Your task to perform on an android device: Open the calendar and show me this week's events Image 0: 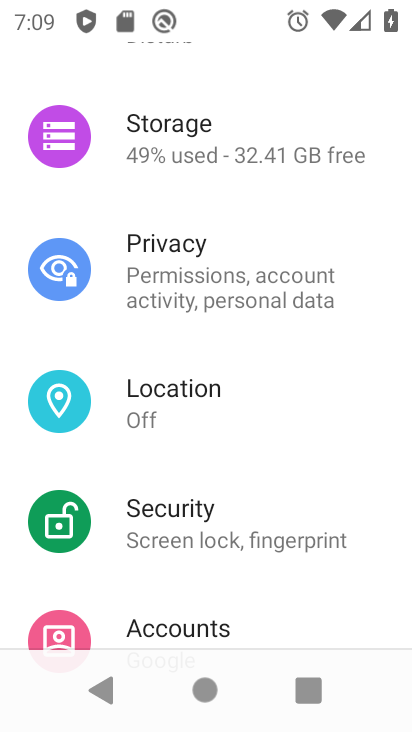
Step 0: press home button
Your task to perform on an android device: Open the calendar and show me this week's events Image 1: 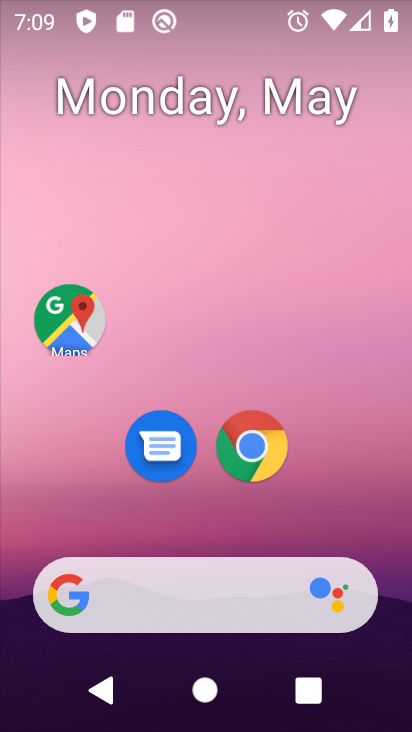
Step 1: drag from (337, 459) to (206, 45)
Your task to perform on an android device: Open the calendar and show me this week's events Image 2: 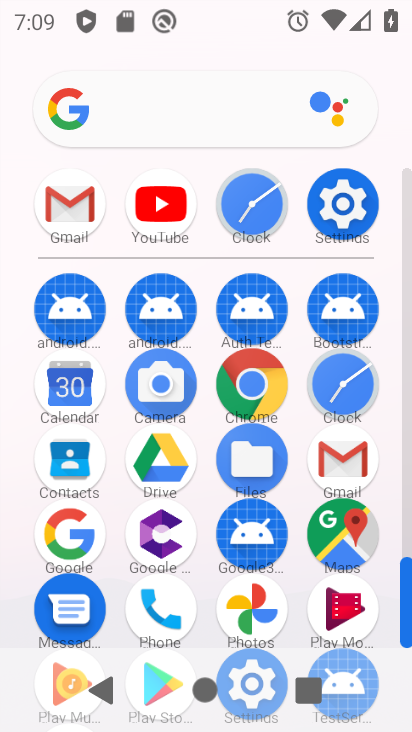
Step 2: click (71, 379)
Your task to perform on an android device: Open the calendar and show me this week's events Image 3: 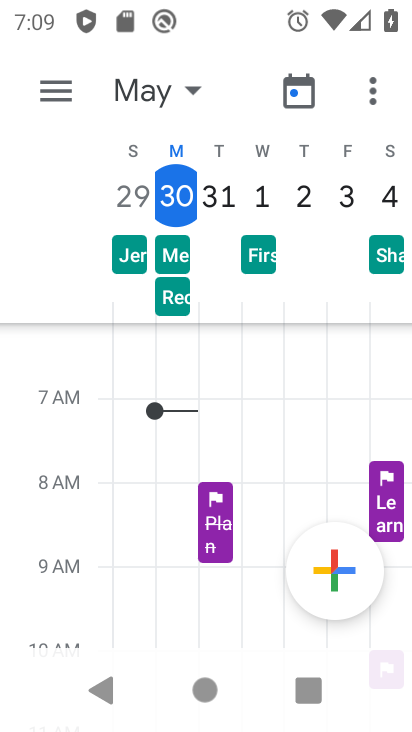
Step 3: task complete